Your task to perform on an android device: Show me popular games on the Play Store Image 0: 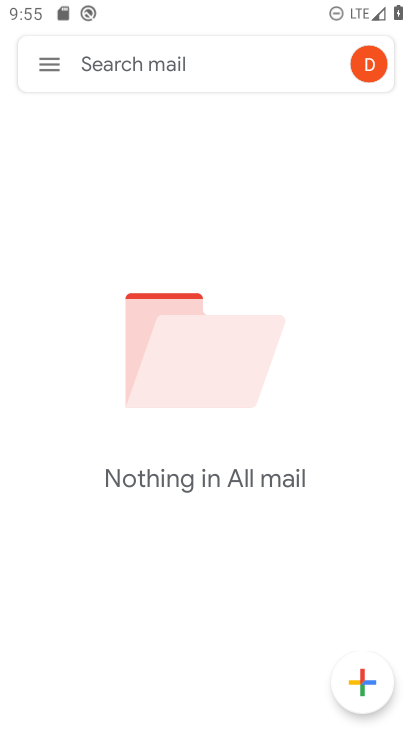
Step 0: press home button
Your task to perform on an android device: Show me popular games on the Play Store Image 1: 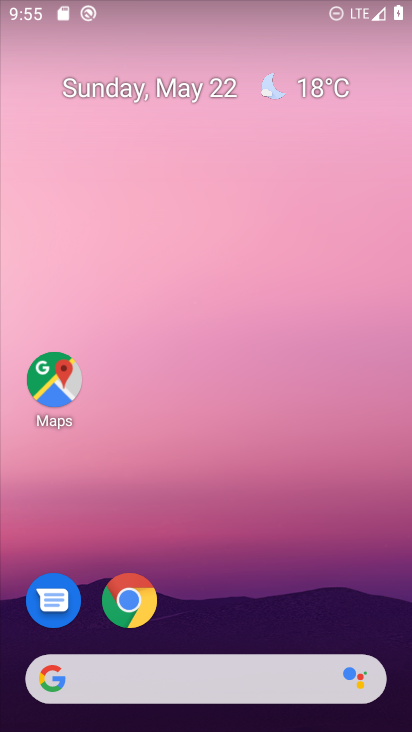
Step 1: drag from (381, 652) to (332, 33)
Your task to perform on an android device: Show me popular games on the Play Store Image 2: 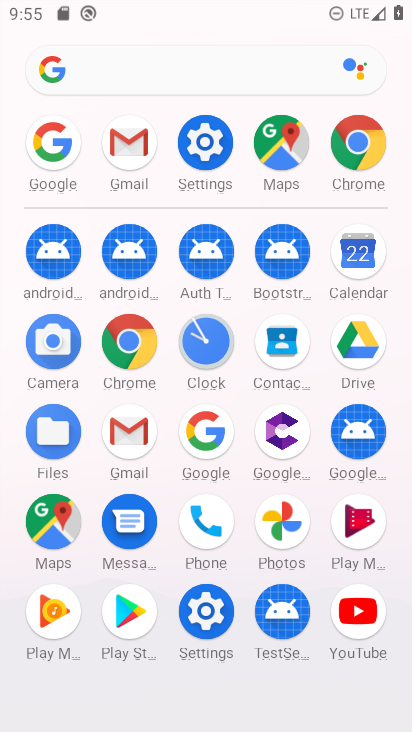
Step 2: click (143, 624)
Your task to perform on an android device: Show me popular games on the Play Store Image 3: 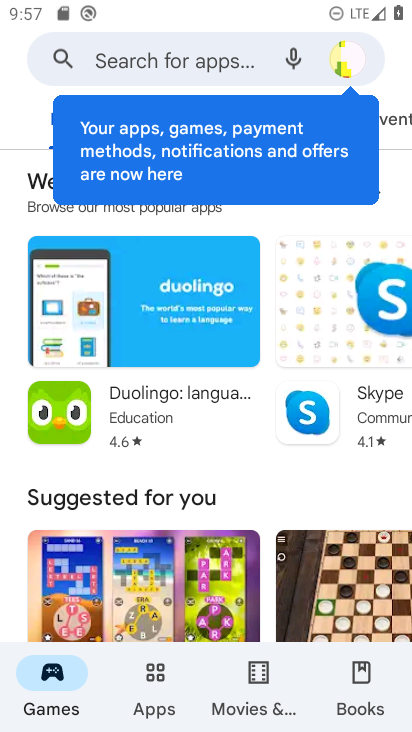
Step 3: task complete